Your task to perform on an android device: Clear the cart on ebay. Search for acer predator on ebay, select the first entry, add it to the cart, then select checkout. Image 0: 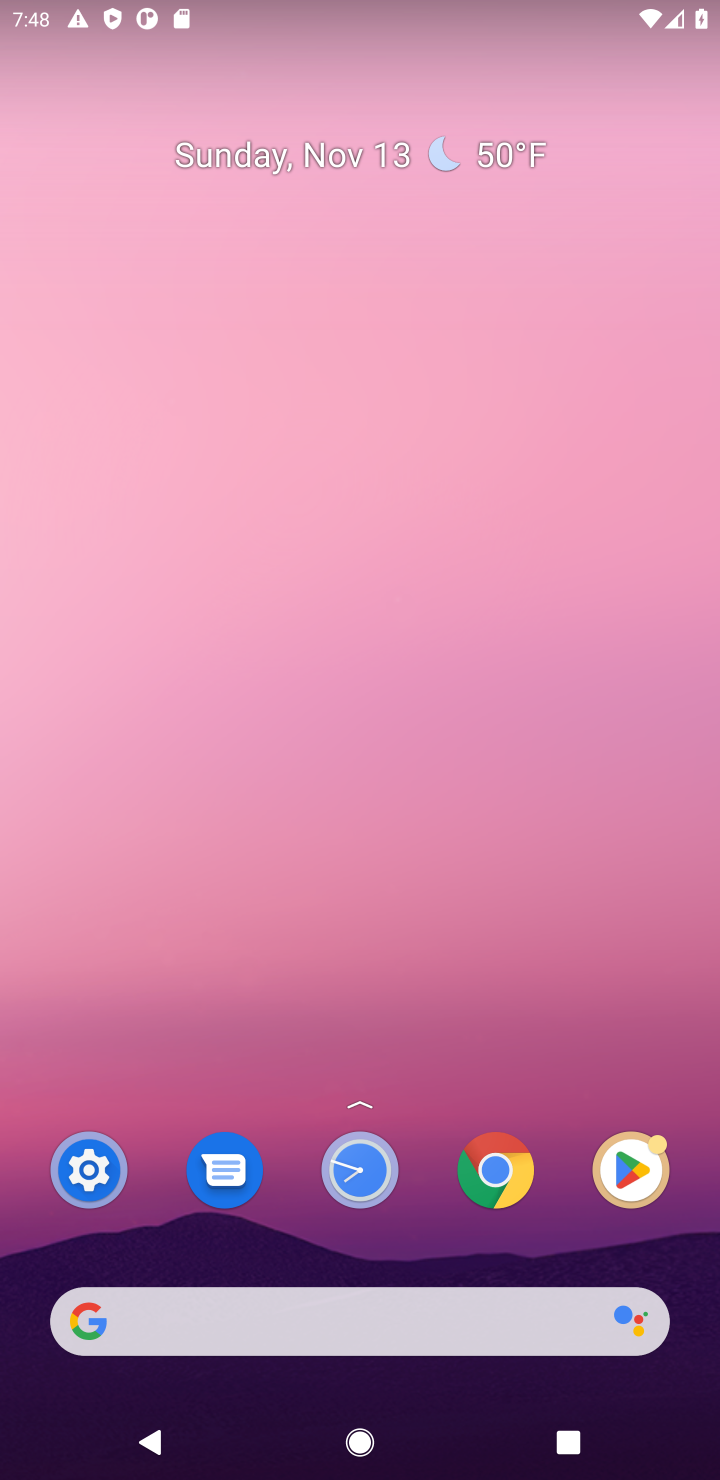
Step 0: click (246, 1330)
Your task to perform on an android device: Clear the cart on ebay. Search for acer predator on ebay, select the first entry, add it to the cart, then select checkout. Image 1: 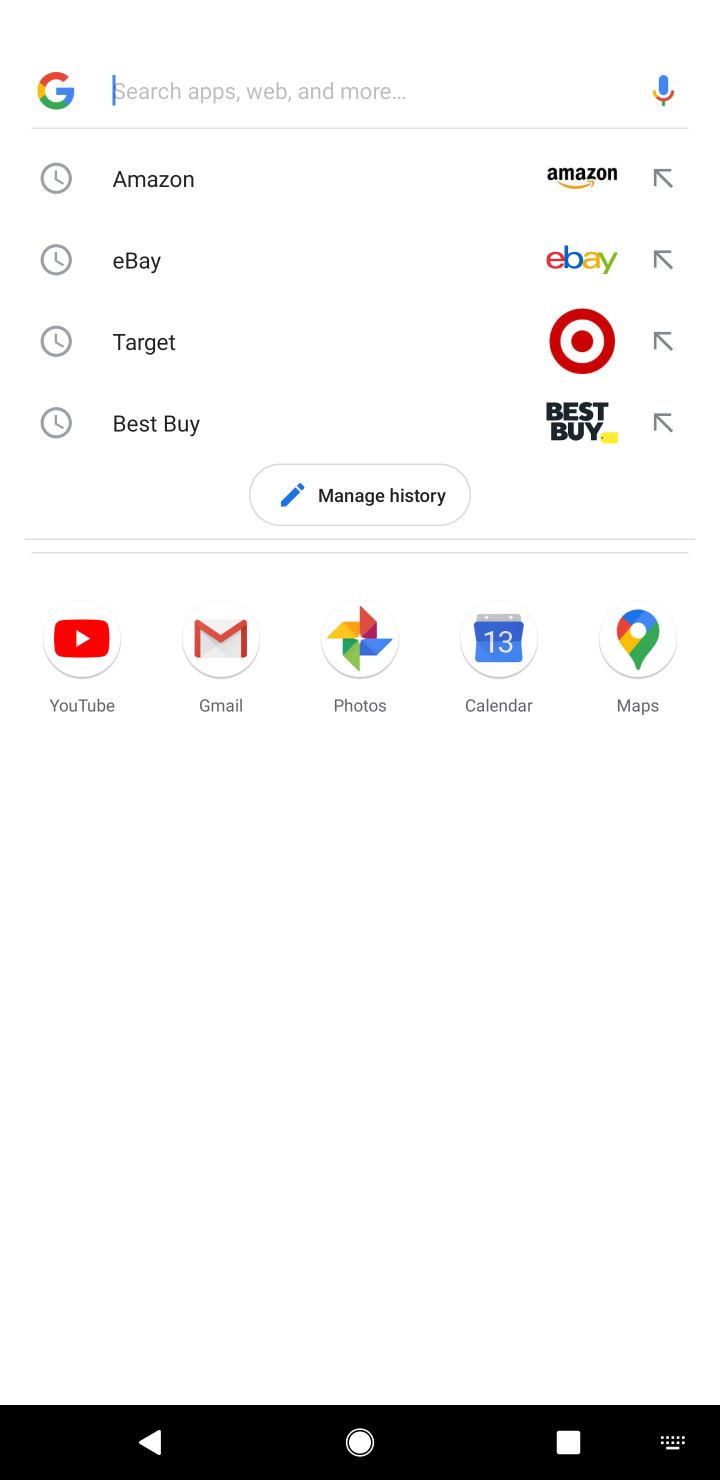
Step 1: click (212, 251)
Your task to perform on an android device: Clear the cart on ebay. Search for acer predator on ebay, select the first entry, add it to the cart, then select checkout. Image 2: 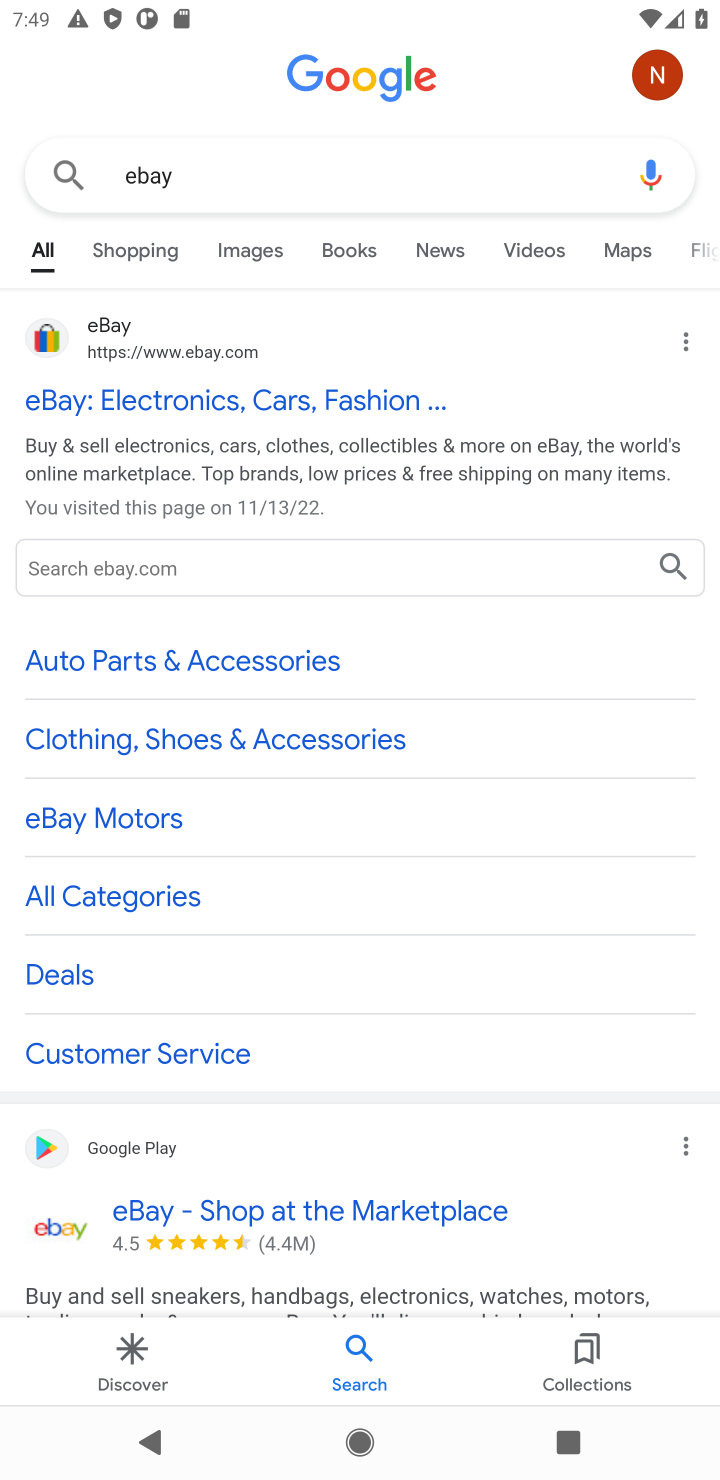
Step 2: click (314, 407)
Your task to perform on an android device: Clear the cart on ebay. Search for acer predator on ebay, select the first entry, add it to the cart, then select checkout. Image 3: 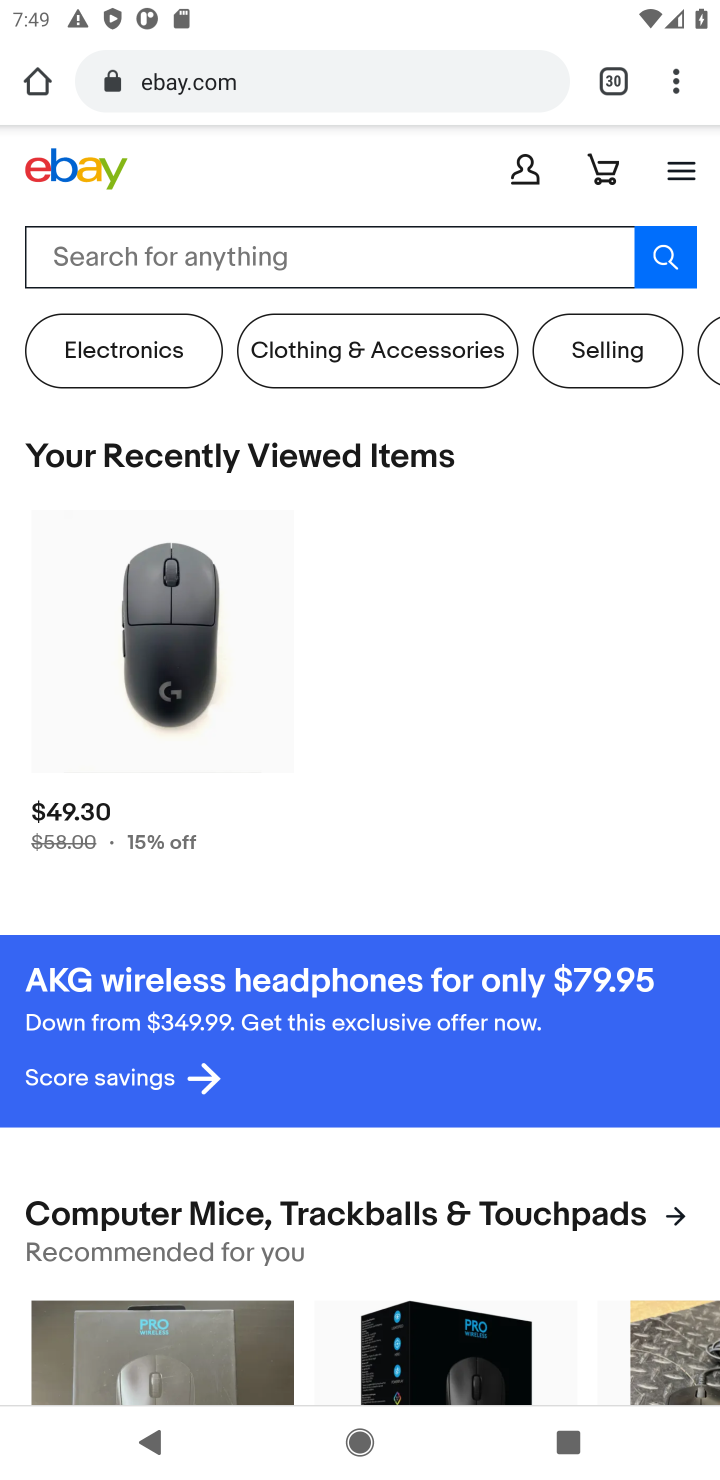
Step 3: task complete